Your task to perform on an android device: open wifi settings Image 0: 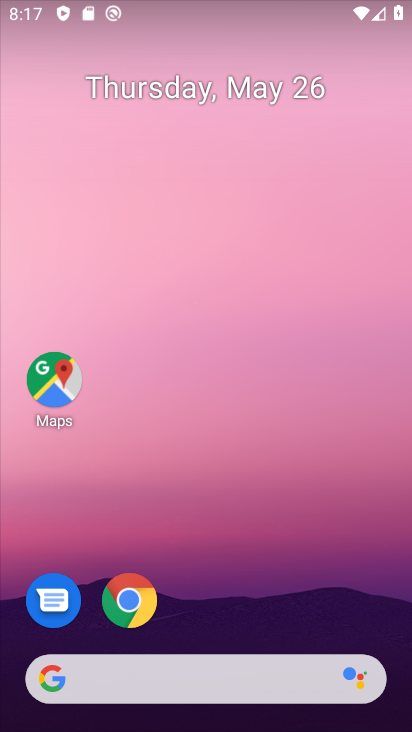
Step 0: drag from (225, 8) to (210, 506)
Your task to perform on an android device: open wifi settings Image 1: 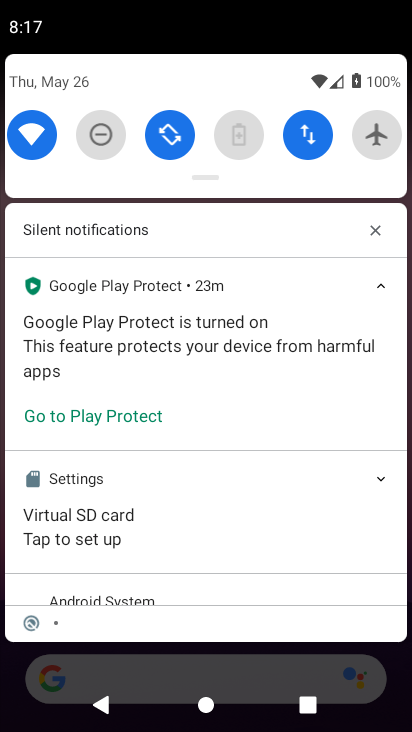
Step 1: click (31, 127)
Your task to perform on an android device: open wifi settings Image 2: 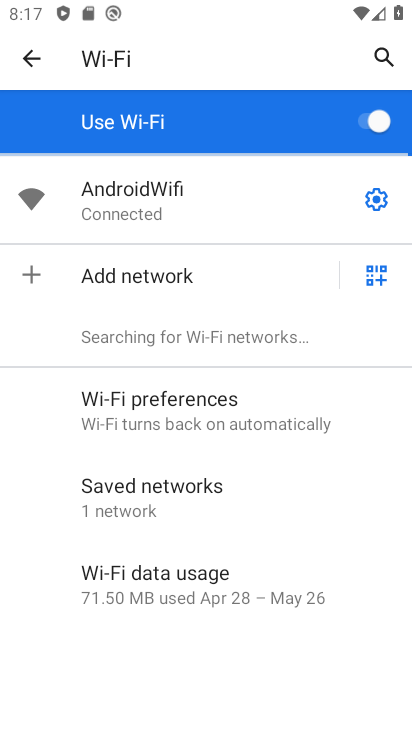
Step 2: task complete